Your task to perform on an android device: turn on javascript in the chrome app Image 0: 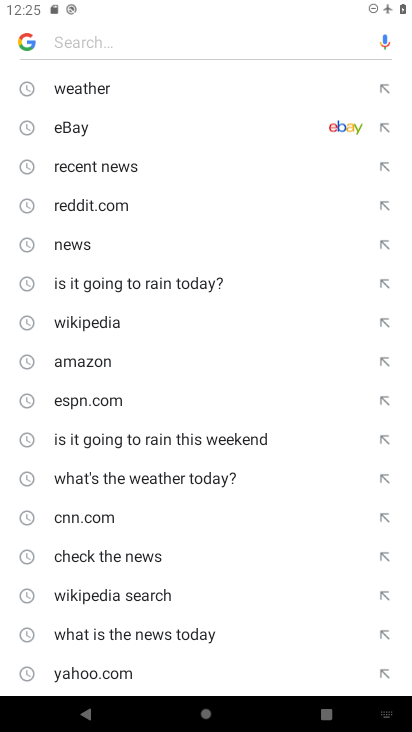
Step 0: press home button
Your task to perform on an android device: turn on javascript in the chrome app Image 1: 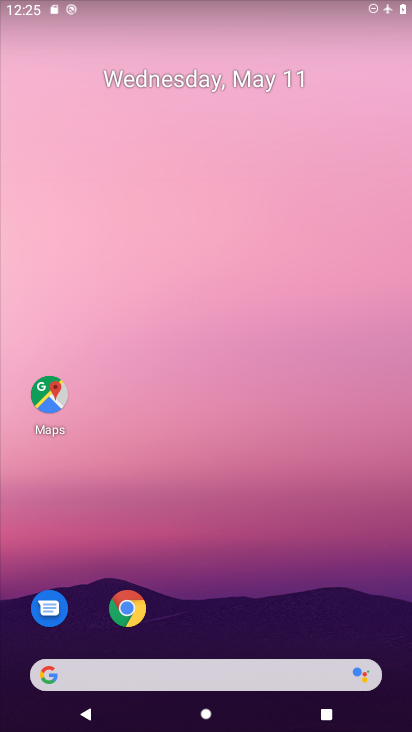
Step 1: drag from (208, 522) to (237, 63)
Your task to perform on an android device: turn on javascript in the chrome app Image 2: 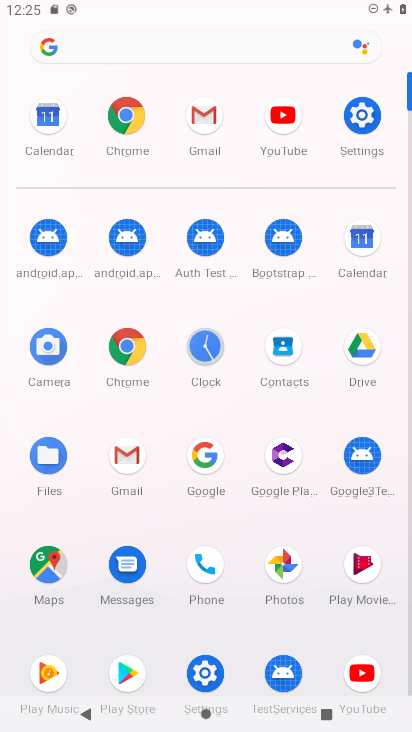
Step 2: click (119, 105)
Your task to perform on an android device: turn on javascript in the chrome app Image 3: 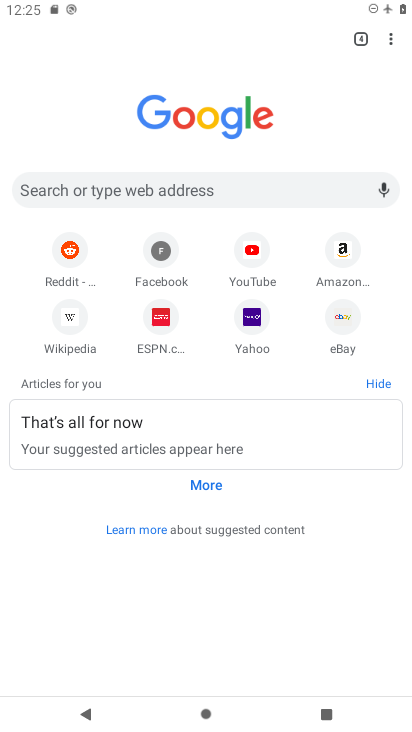
Step 3: click (388, 37)
Your task to perform on an android device: turn on javascript in the chrome app Image 4: 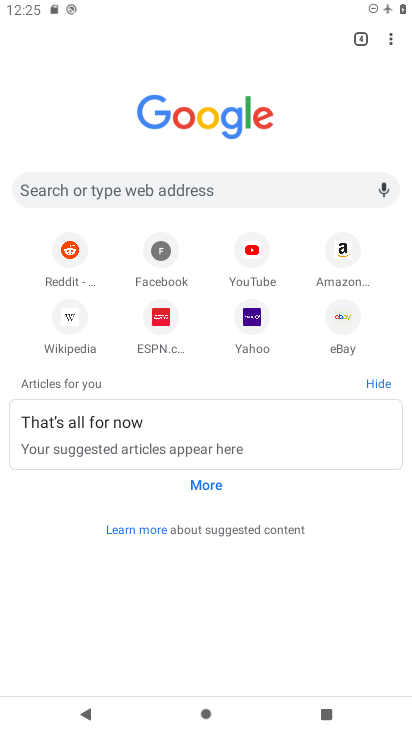
Step 4: click (388, 39)
Your task to perform on an android device: turn on javascript in the chrome app Image 5: 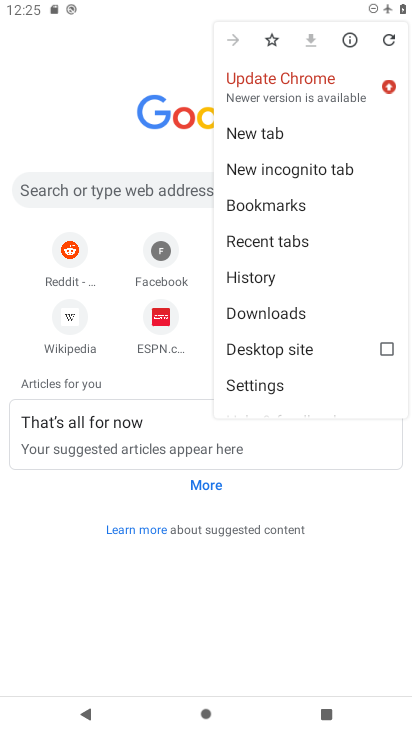
Step 5: click (292, 380)
Your task to perform on an android device: turn on javascript in the chrome app Image 6: 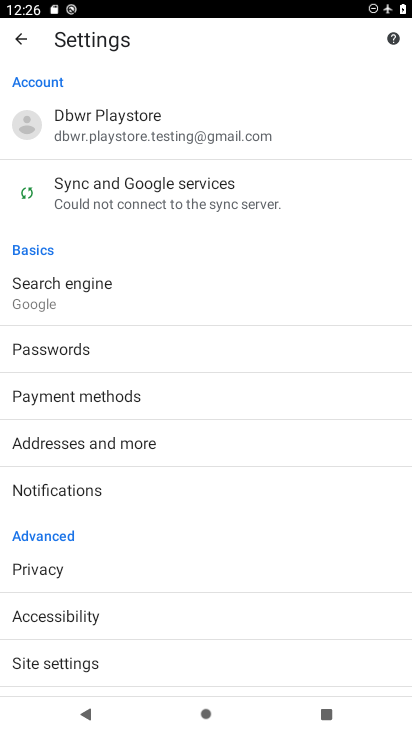
Step 6: click (213, 658)
Your task to perform on an android device: turn on javascript in the chrome app Image 7: 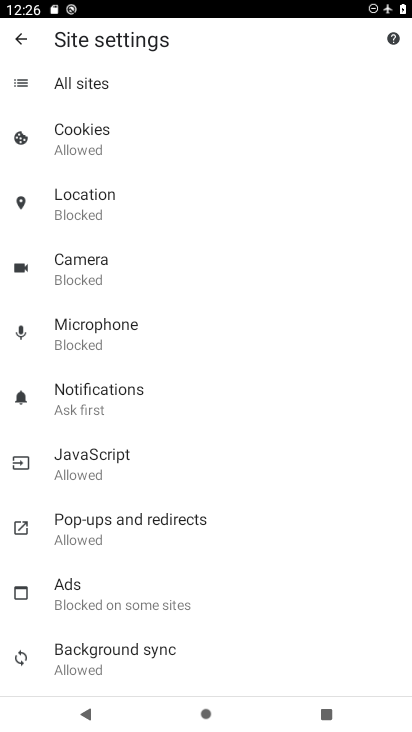
Step 7: click (163, 462)
Your task to perform on an android device: turn on javascript in the chrome app Image 8: 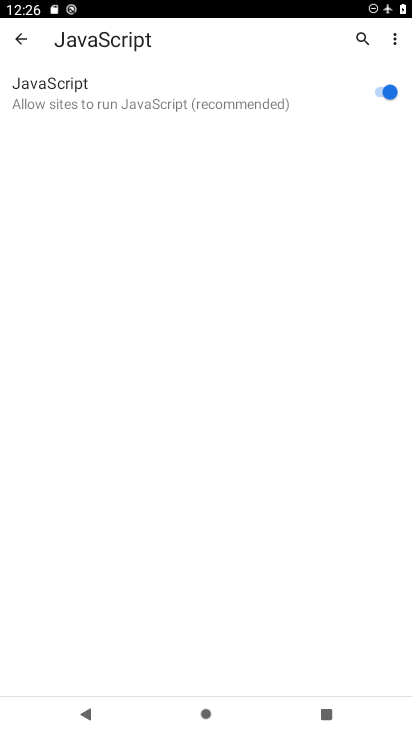
Step 8: task complete